Your task to perform on an android device: change your default location settings in chrome Image 0: 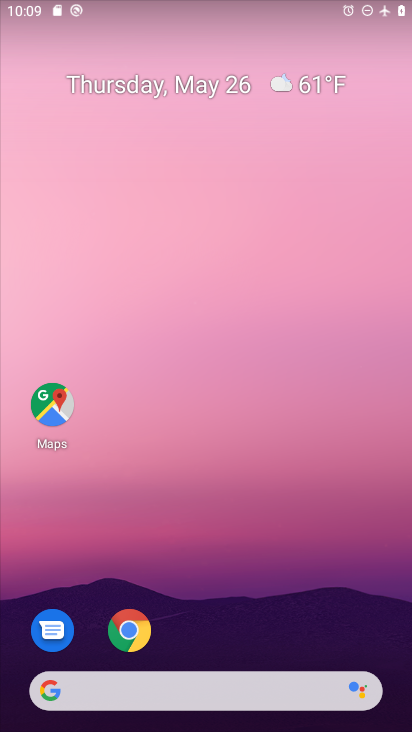
Step 0: click (138, 620)
Your task to perform on an android device: change your default location settings in chrome Image 1: 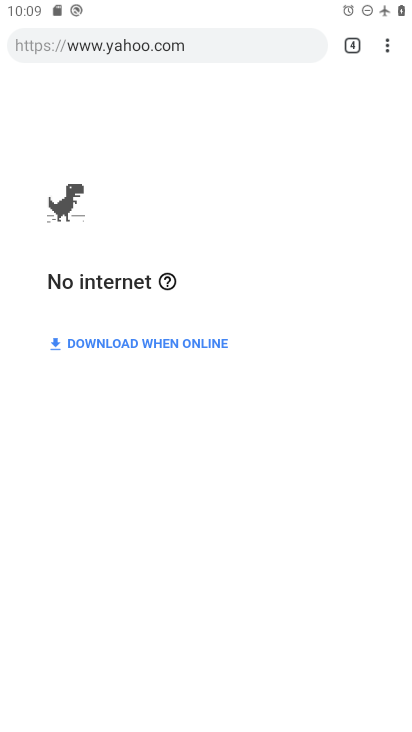
Step 1: click (390, 37)
Your task to perform on an android device: change your default location settings in chrome Image 2: 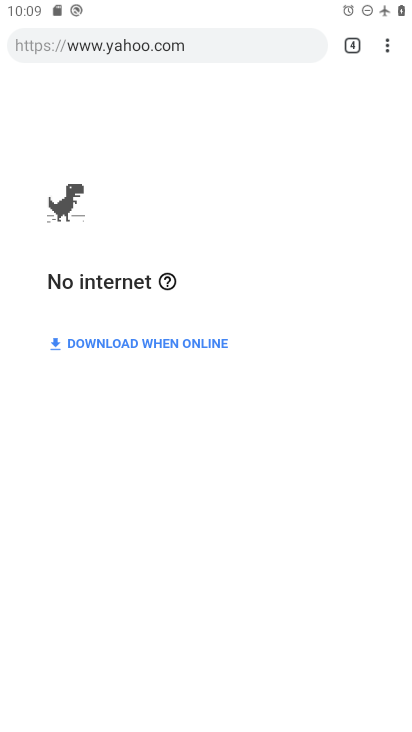
Step 2: click (390, 37)
Your task to perform on an android device: change your default location settings in chrome Image 3: 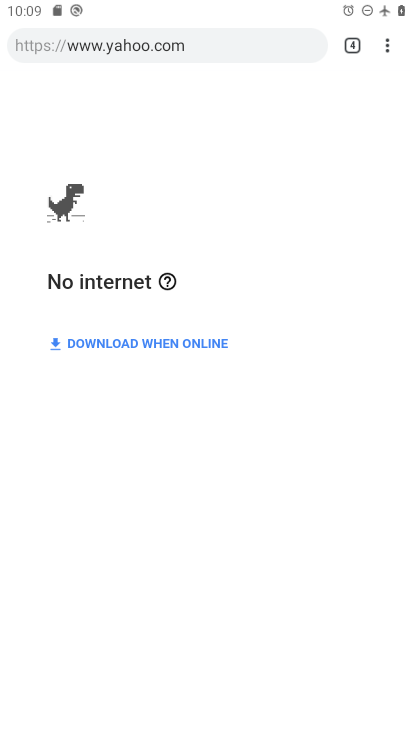
Step 3: click (384, 45)
Your task to perform on an android device: change your default location settings in chrome Image 4: 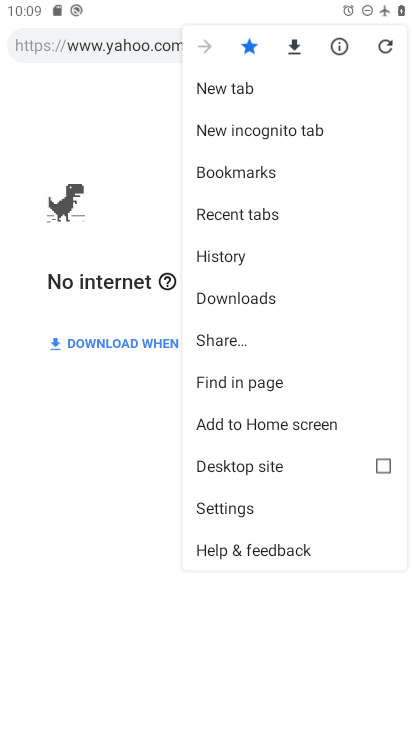
Step 4: click (234, 519)
Your task to perform on an android device: change your default location settings in chrome Image 5: 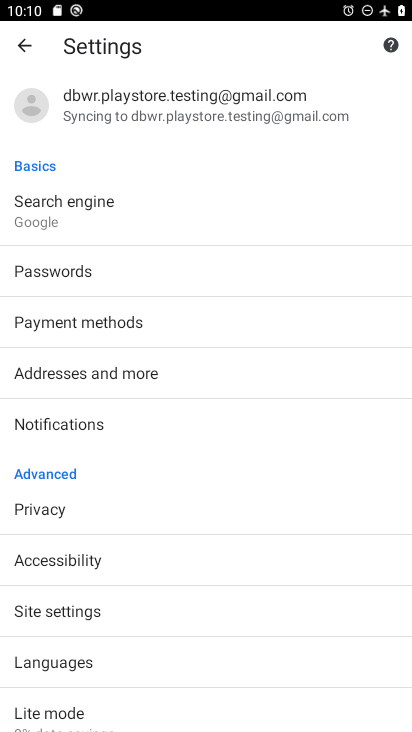
Step 5: click (91, 629)
Your task to perform on an android device: change your default location settings in chrome Image 6: 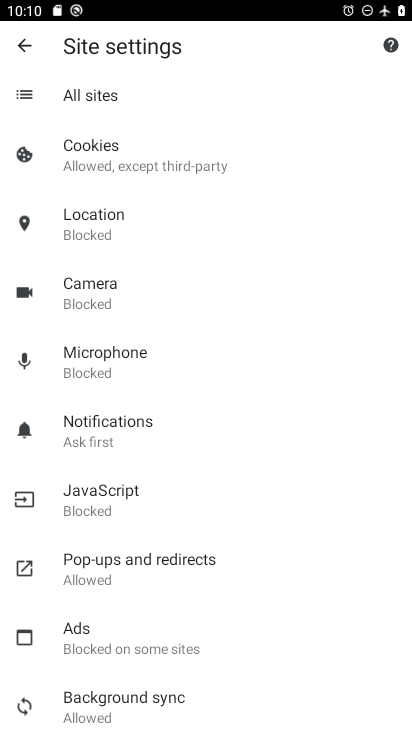
Step 6: click (92, 227)
Your task to perform on an android device: change your default location settings in chrome Image 7: 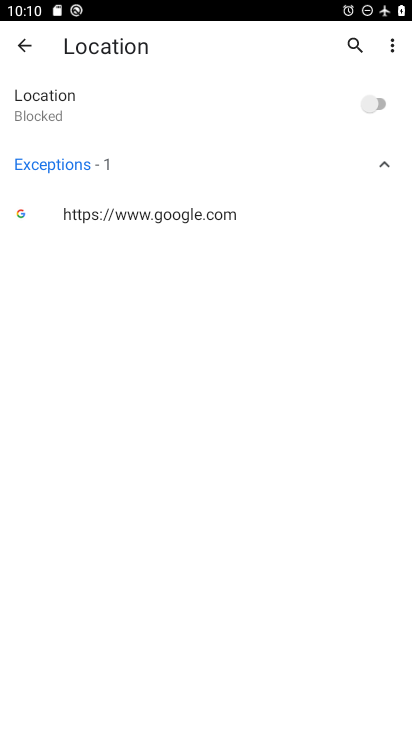
Step 7: click (394, 107)
Your task to perform on an android device: change your default location settings in chrome Image 8: 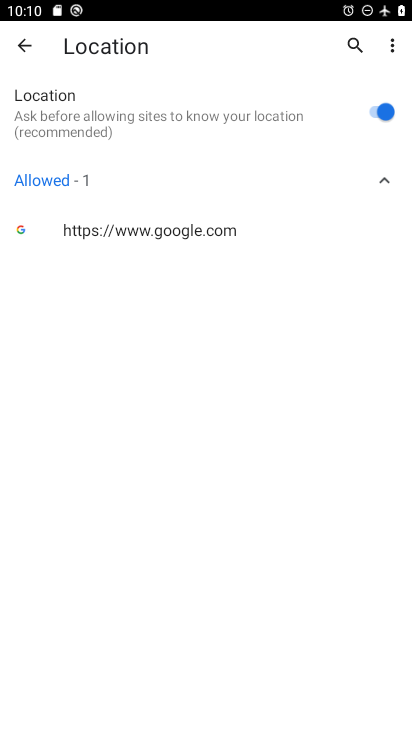
Step 8: task complete